Your task to perform on an android device: Open display settings Image 0: 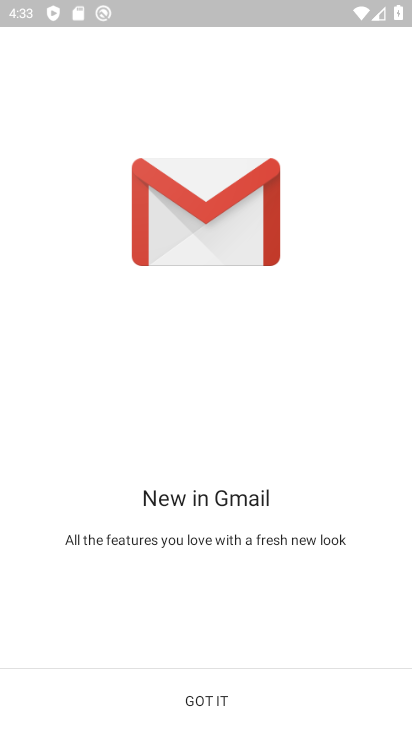
Step 0: press home button
Your task to perform on an android device: Open display settings Image 1: 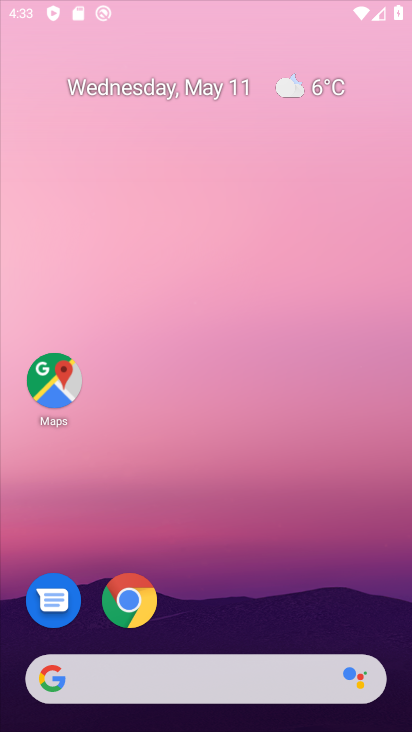
Step 1: drag from (306, 585) to (215, 2)
Your task to perform on an android device: Open display settings Image 2: 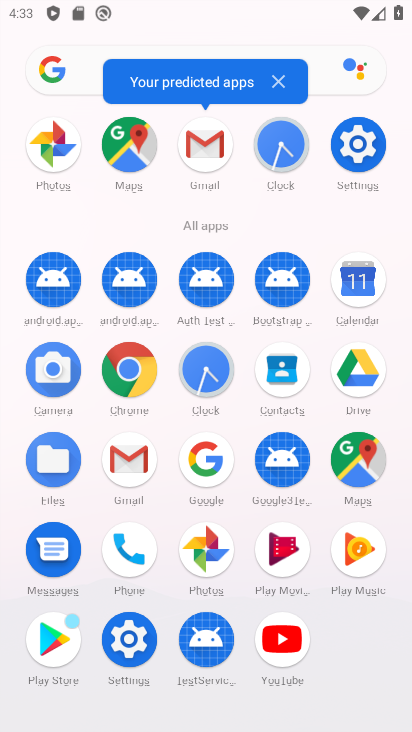
Step 2: click (357, 147)
Your task to perform on an android device: Open display settings Image 3: 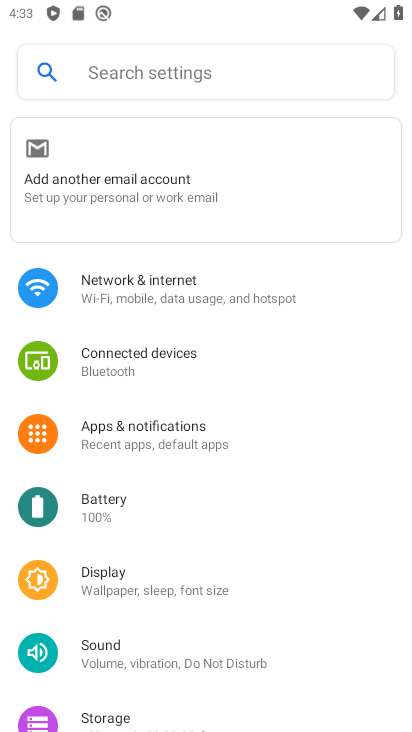
Step 3: click (138, 583)
Your task to perform on an android device: Open display settings Image 4: 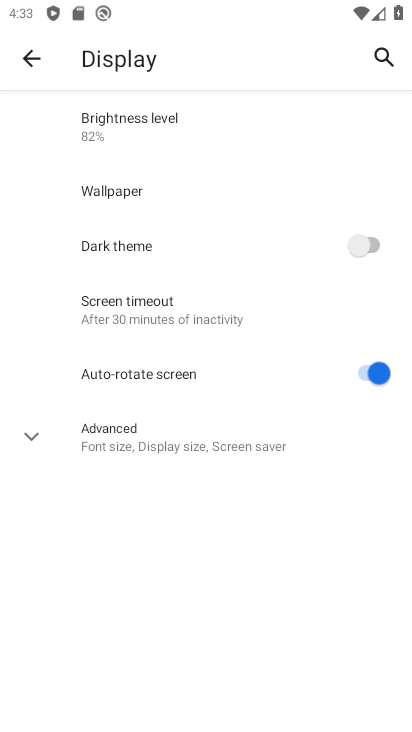
Step 4: task complete